Your task to perform on an android device: Open sound settings Image 0: 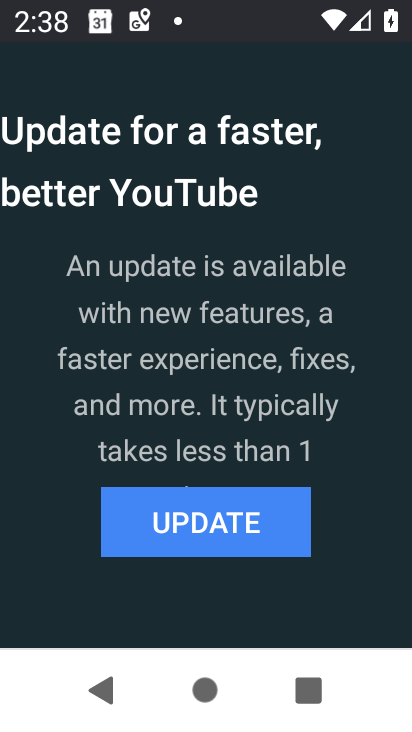
Step 0: press home button
Your task to perform on an android device: Open sound settings Image 1: 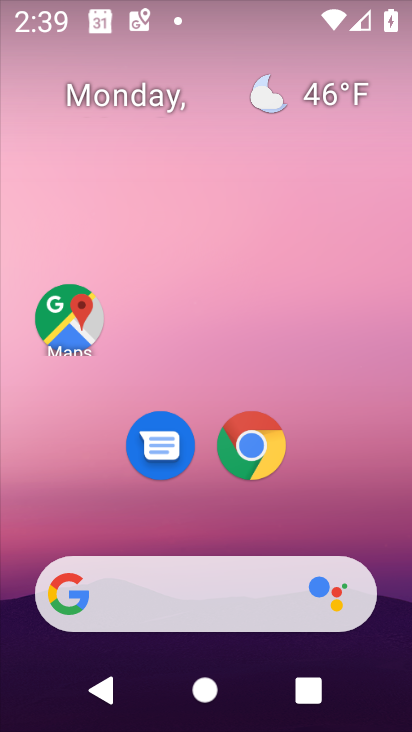
Step 1: drag from (316, 511) to (393, 71)
Your task to perform on an android device: Open sound settings Image 2: 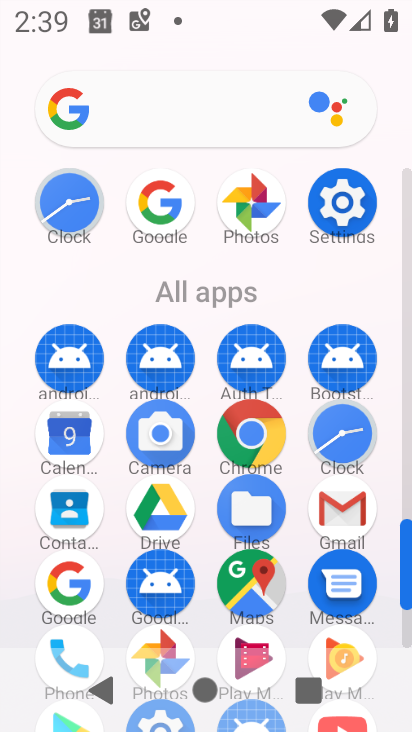
Step 2: click (361, 200)
Your task to perform on an android device: Open sound settings Image 3: 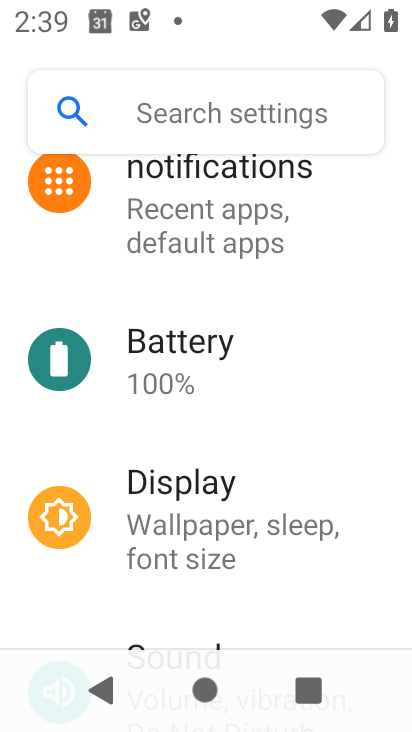
Step 3: drag from (269, 531) to (277, 140)
Your task to perform on an android device: Open sound settings Image 4: 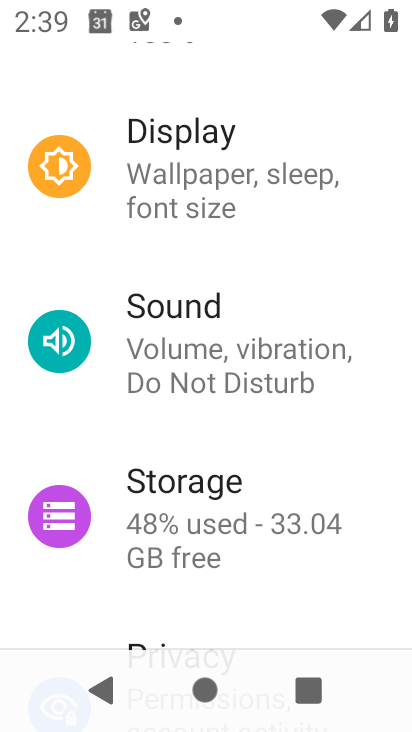
Step 4: click (288, 355)
Your task to perform on an android device: Open sound settings Image 5: 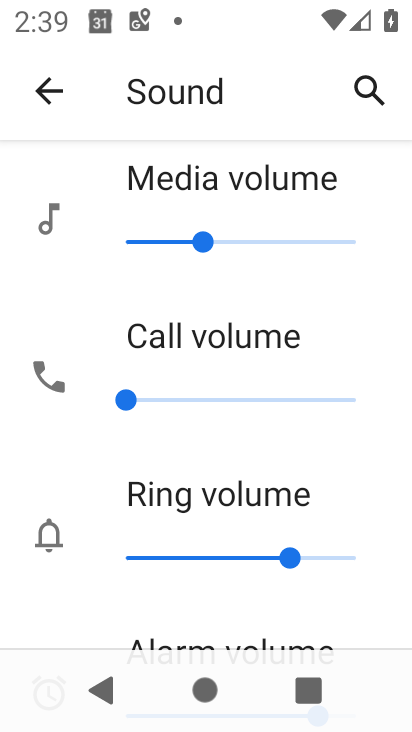
Step 5: task complete